Your task to perform on an android device: Open calendar and show me the second week of next month Image 0: 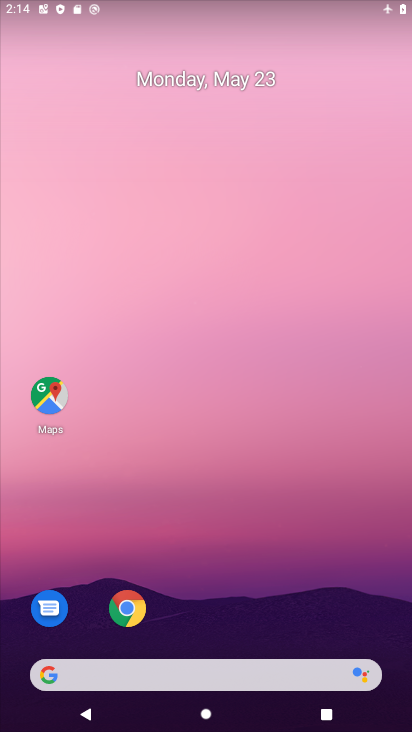
Step 0: drag from (174, 655) to (179, 57)
Your task to perform on an android device: Open calendar and show me the second week of next month Image 1: 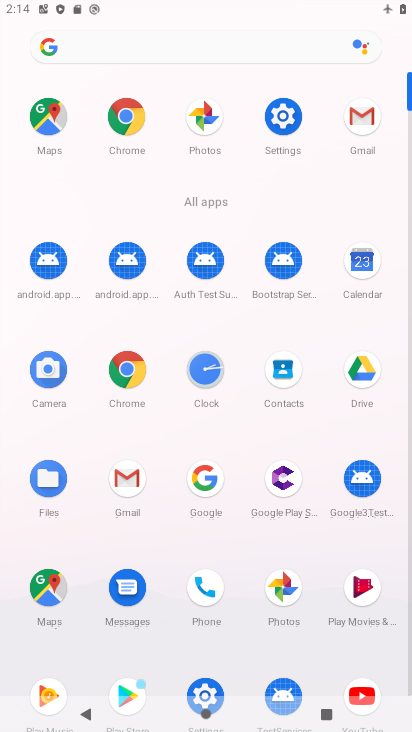
Step 1: click (358, 260)
Your task to perform on an android device: Open calendar and show me the second week of next month Image 2: 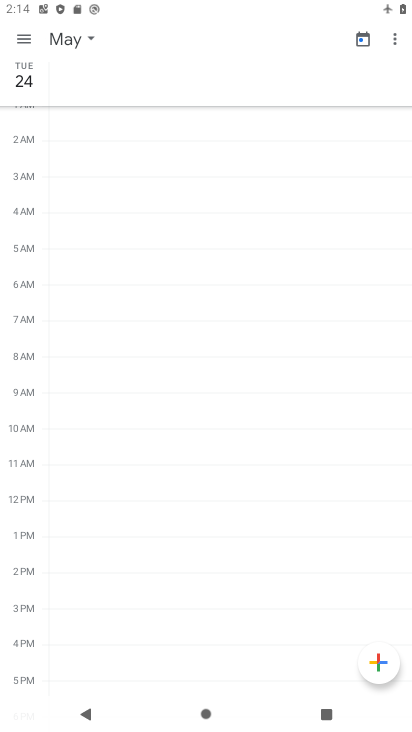
Step 2: click (15, 45)
Your task to perform on an android device: Open calendar and show me the second week of next month Image 3: 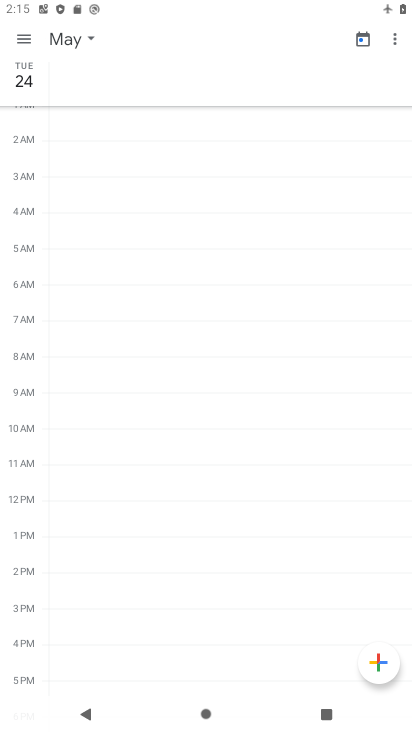
Step 3: click (16, 24)
Your task to perform on an android device: Open calendar and show me the second week of next month Image 4: 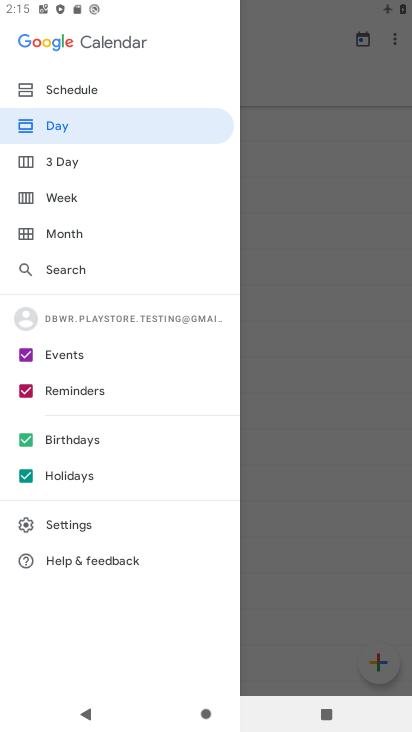
Step 4: click (69, 185)
Your task to perform on an android device: Open calendar and show me the second week of next month Image 5: 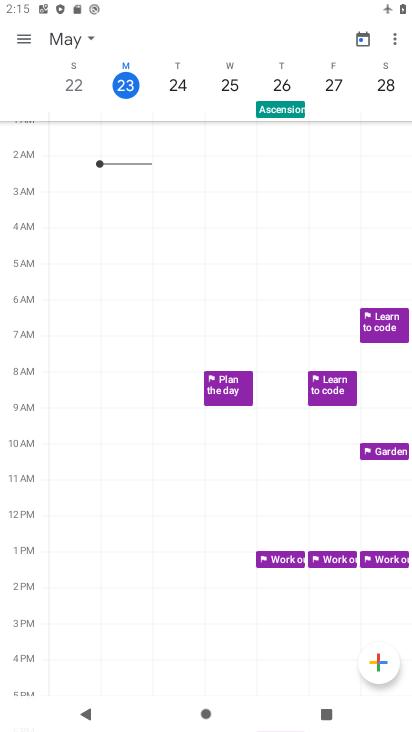
Step 5: task complete